Your task to perform on an android device: What's the news in Brazil? Image 0: 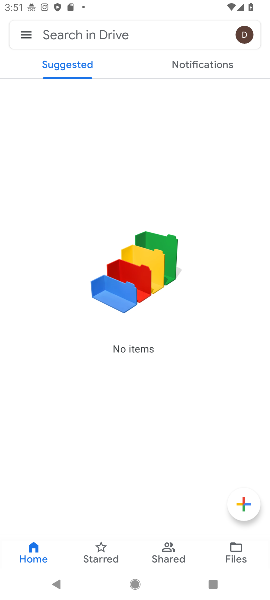
Step 0: press home button
Your task to perform on an android device: What's the news in Brazil? Image 1: 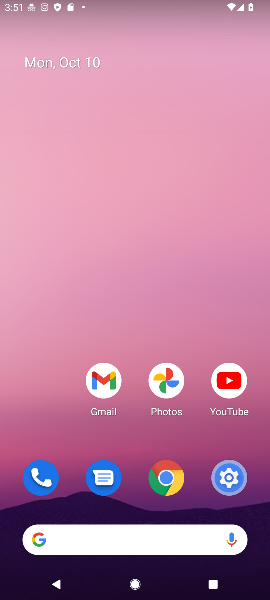
Step 1: click (166, 487)
Your task to perform on an android device: What's the news in Brazil? Image 2: 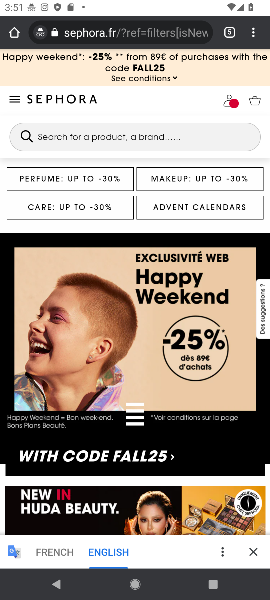
Step 2: click (106, 42)
Your task to perform on an android device: What's the news in Brazil? Image 3: 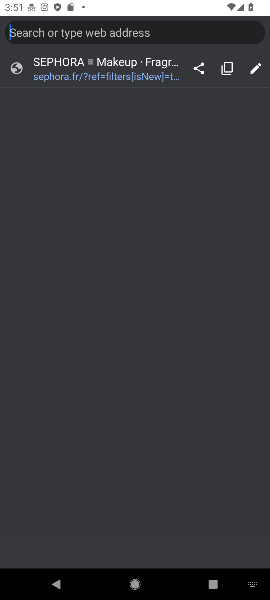
Step 3: type "news in brazil"
Your task to perform on an android device: What's the news in Brazil? Image 4: 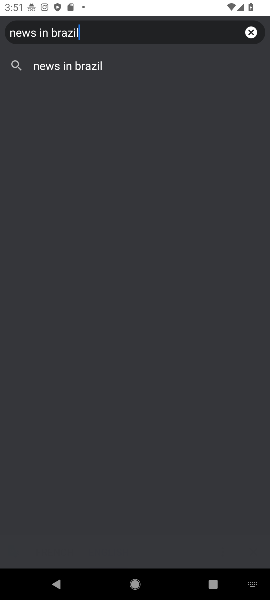
Step 4: click (35, 63)
Your task to perform on an android device: What's the news in Brazil? Image 5: 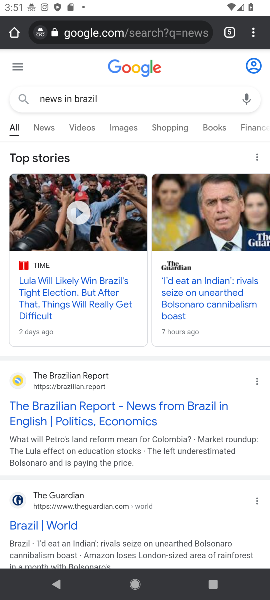
Step 5: click (117, 412)
Your task to perform on an android device: What's the news in Brazil? Image 6: 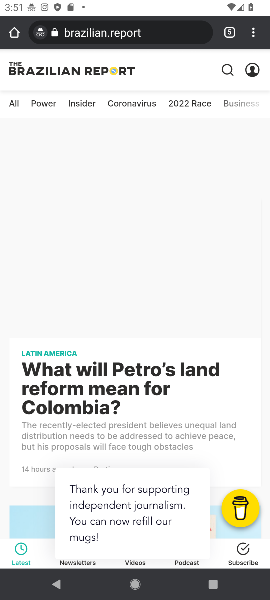
Step 6: drag from (118, 412) to (146, 3)
Your task to perform on an android device: What's the news in Brazil? Image 7: 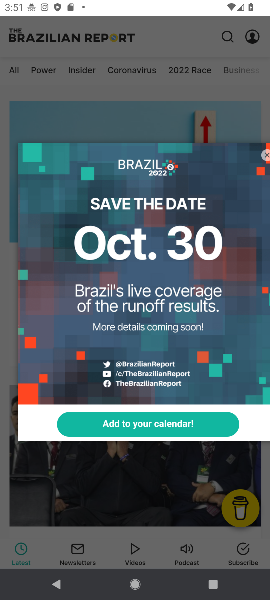
Step 7: click (262, 153)
Your task to perform on an android device: What's the news in Brazil? Image 8: 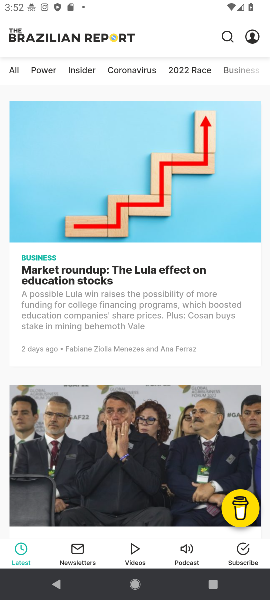
Step 8: task complete